Your task to perform on an android device: What's the weather like in Sydney? Image 0: 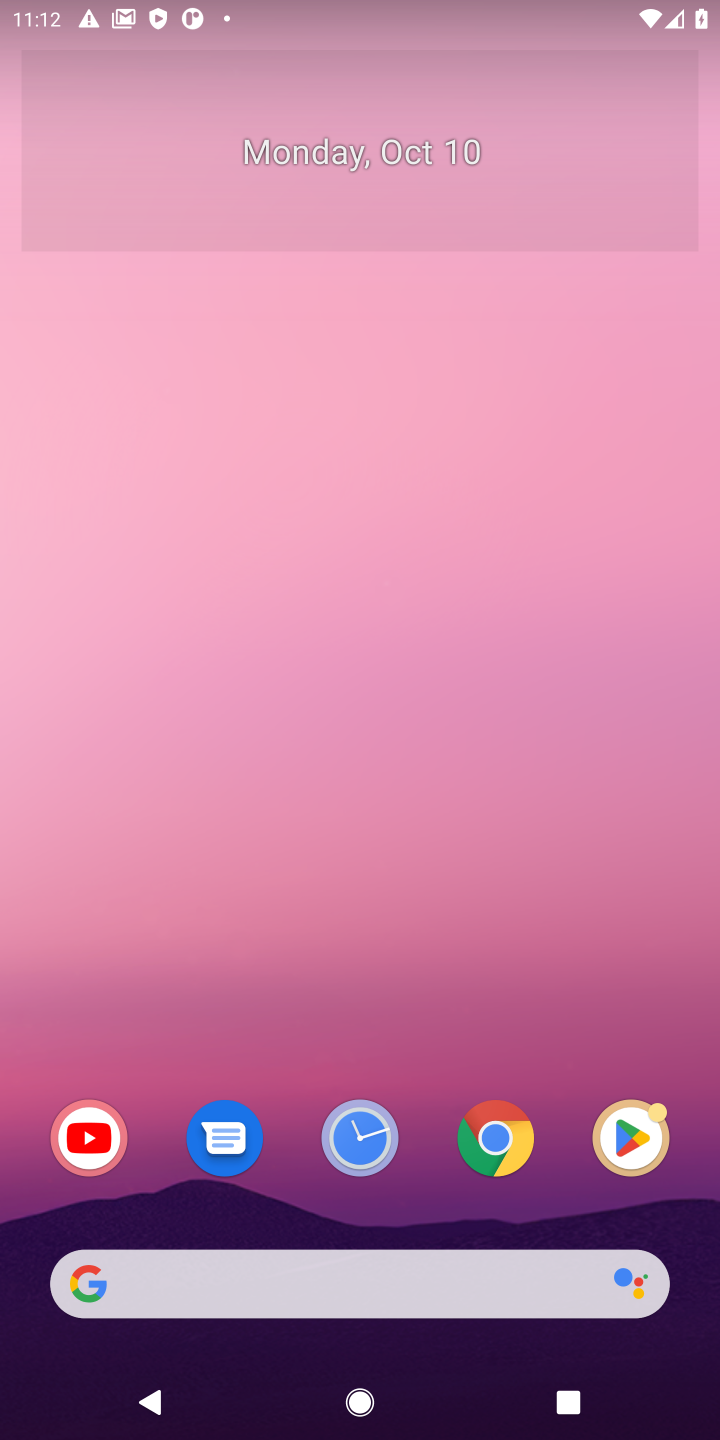
Step 0: click (75, 1283)
Your task to perform on an android device: What's the weather like in Sydney? Image 1: 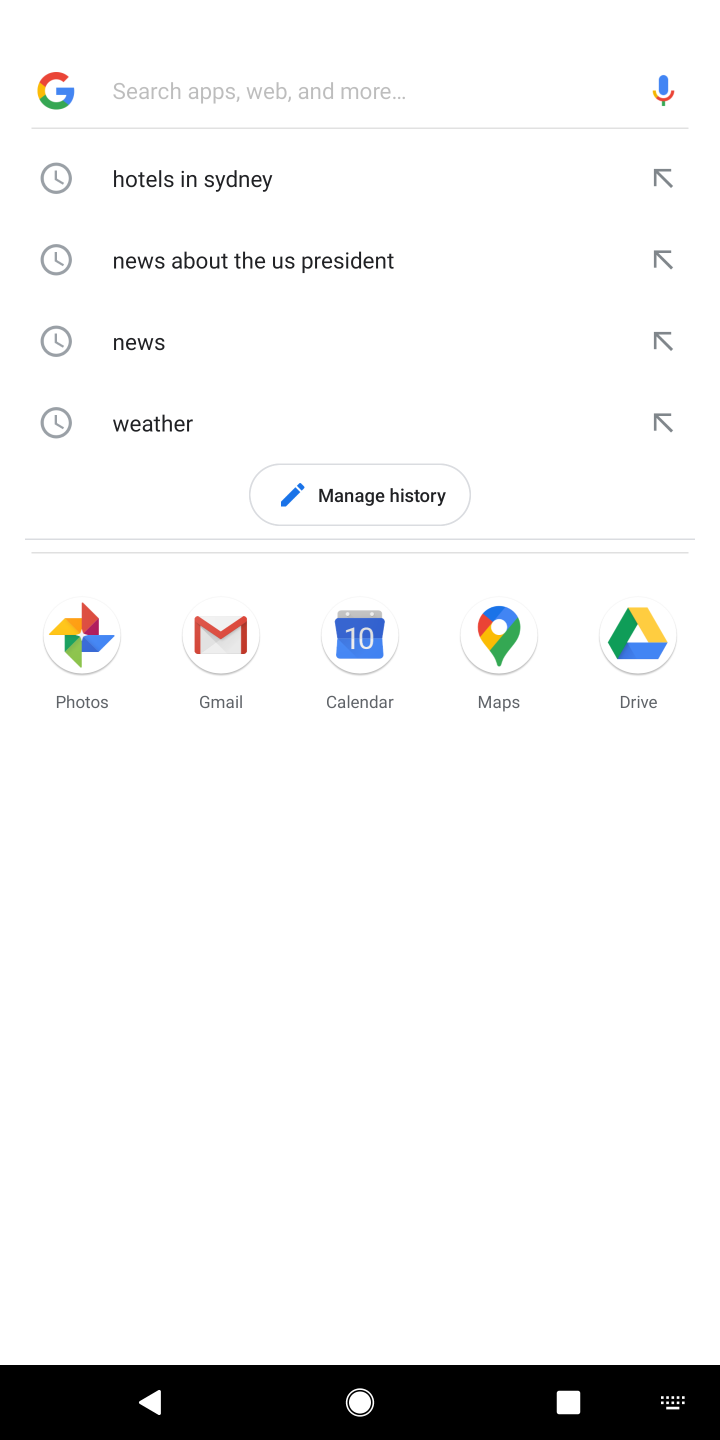
Step 1: type "weather like in Sydney"
Your task to perform on an android device: What's the weather like in Sydney? Image 2: 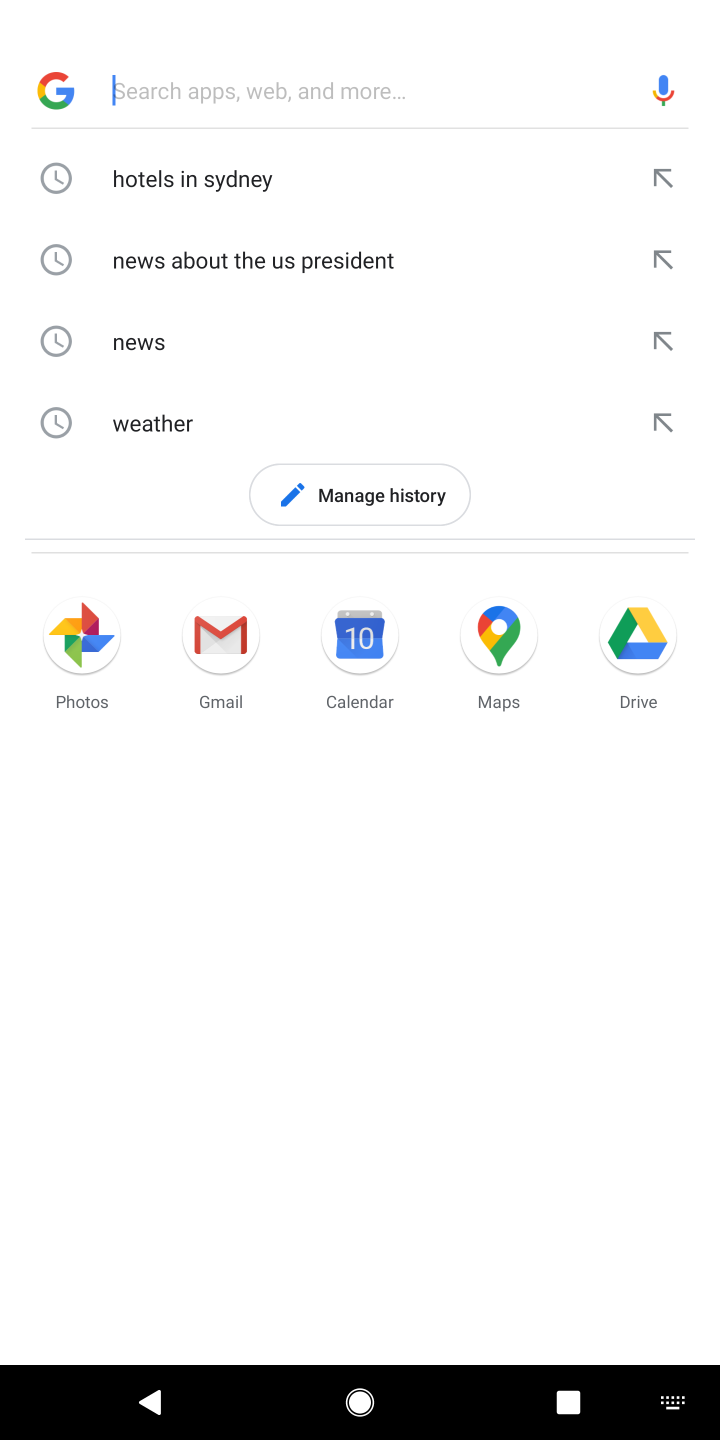
Step 2: drag from (152, 87) to (263, 97)
Your task to perform on an android device: What's the weather like in Sydney? Image 3: 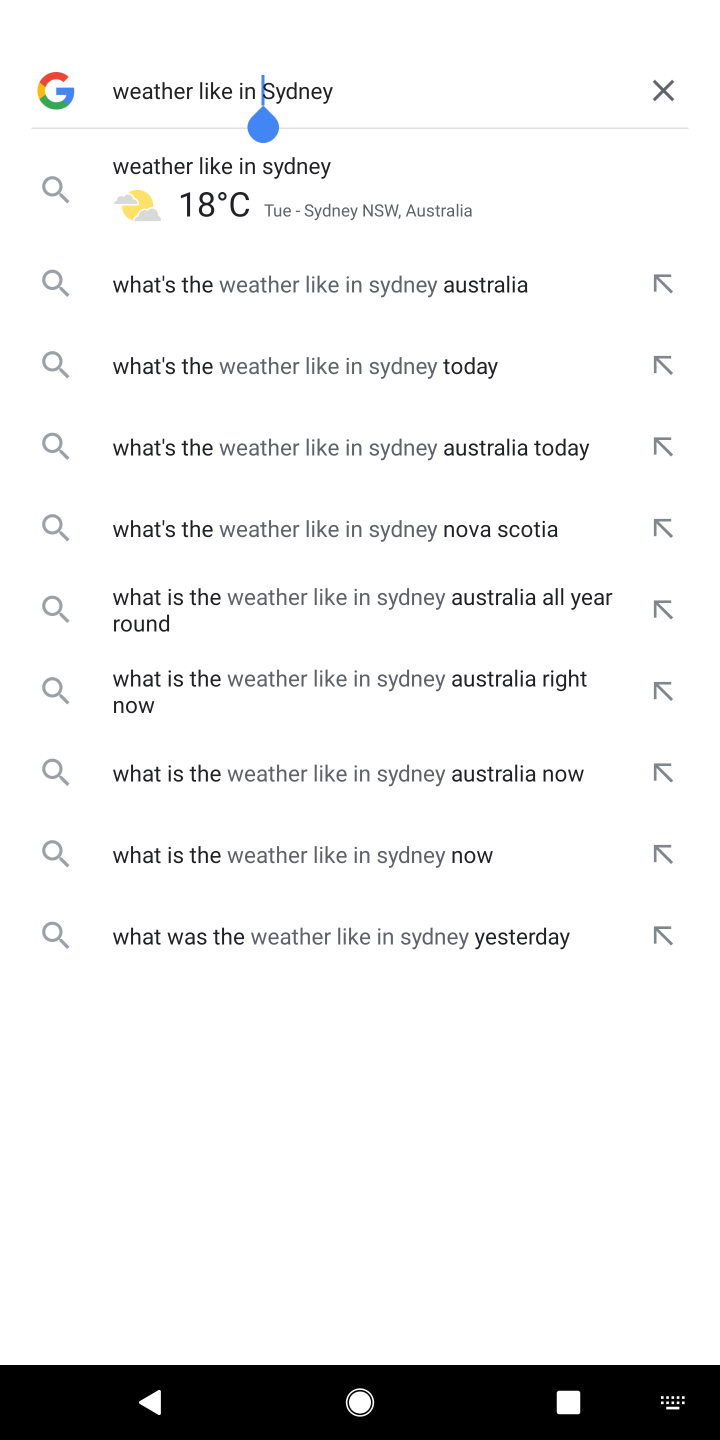
Step 3: press enter
Your task to perform on an android device: What's the weather like in Sydney? Image 4: 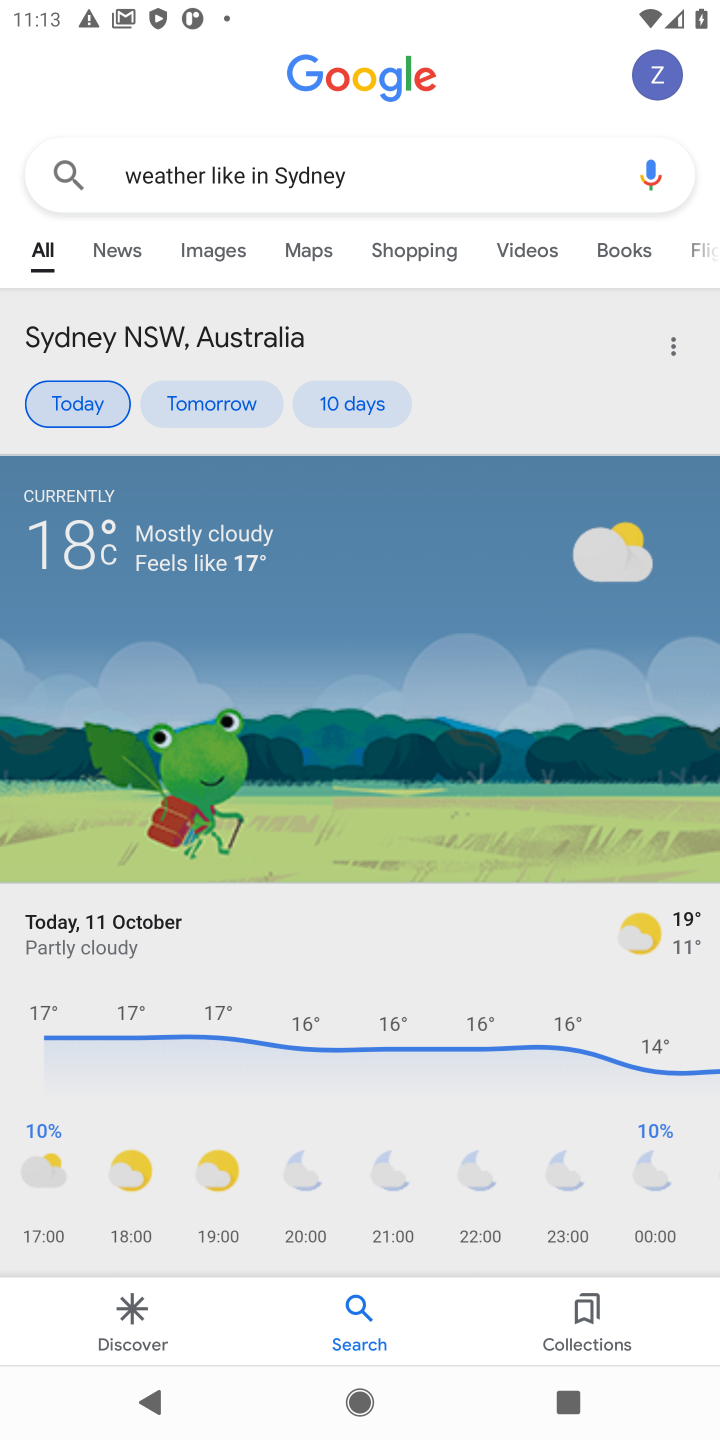
Step 4: task complete